Your task to perform on an android device: Open Wikipedia Image 0: 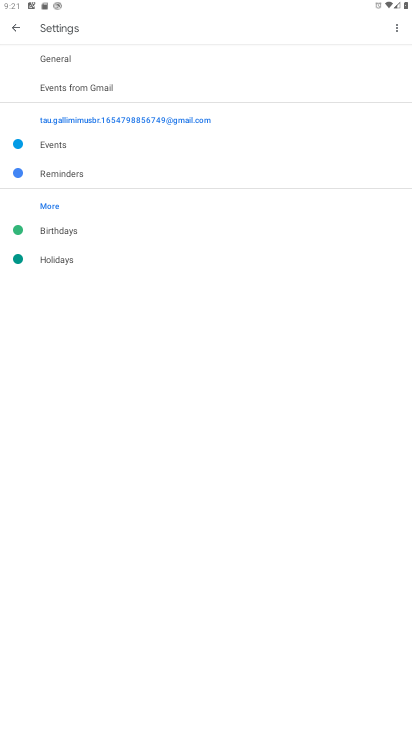
Step 0: press home button
Your task to perform on an android device: Open Wikipedia Image 1: 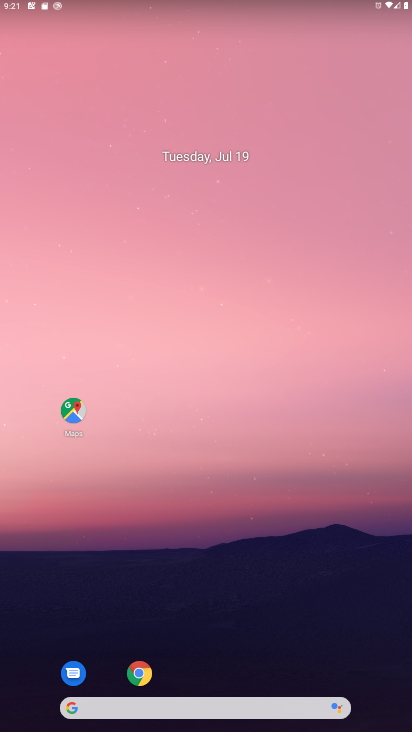
Step 1: click (137, 673)
Your task to perform on an android device: Open Wikipedia Image 2: 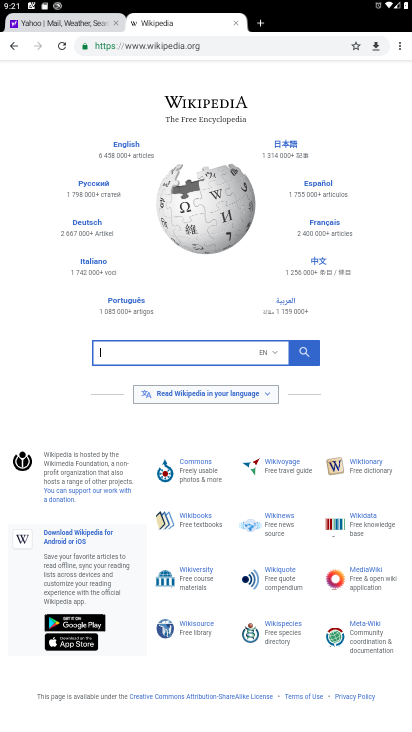
Step 2: task complete